Your task to perform on an android device: toggle show notifications on the lock screen Image 0: 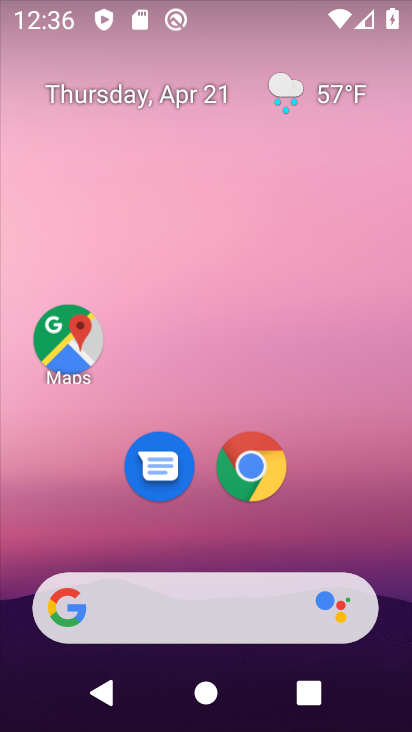
Step 0: drag from (353, 516) to (403, 52)
Your task to perform on an android device: toggle show notifications on the lock screen Image 1: 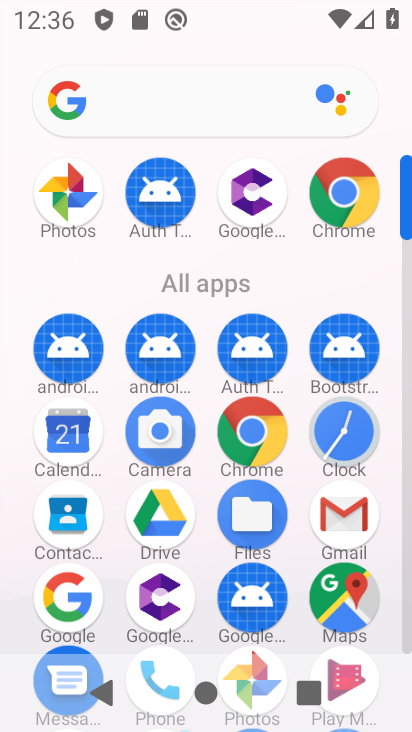
Step 1: drag from (387, 530) to (410, 410)
Your task to perform on an android device: toggle show notifications on the lock screen Image 2: 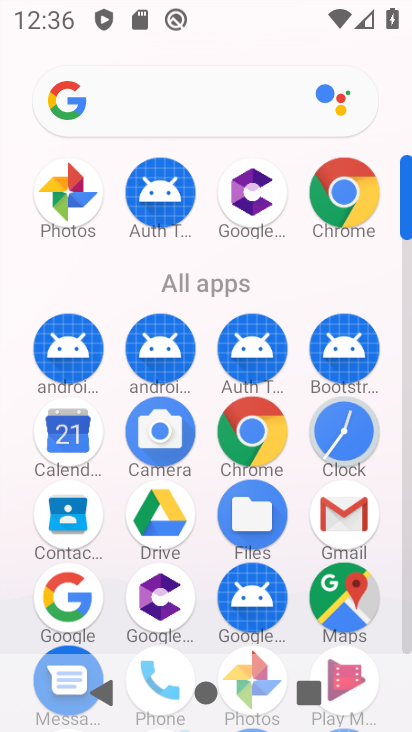
Step 2: drag from (407, 589) to (406, 385)
Your task to perform on an android device: toggle show notifications on the lock screen Image 3: 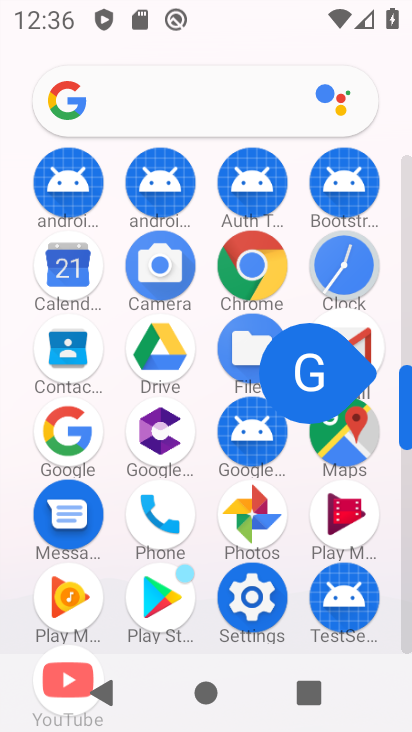
Step 3: click (220, 531)
Your task to perform on an android device: toggle show notifications on the lock screen Image 4: 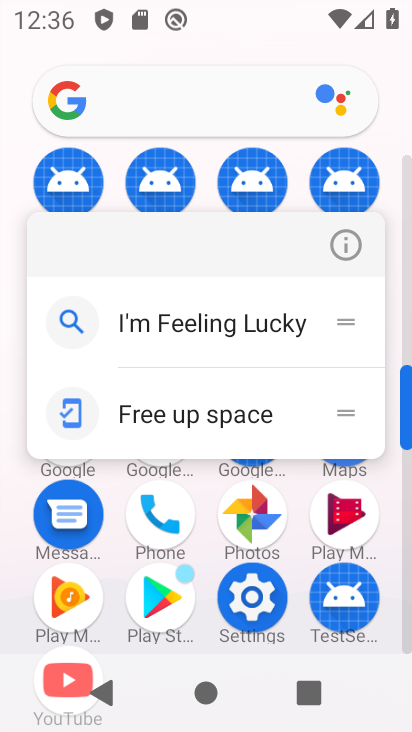
Step 4: click (248, 608)
Your task to perform on an android device: toggle show notifications on the lock screen Image 5: 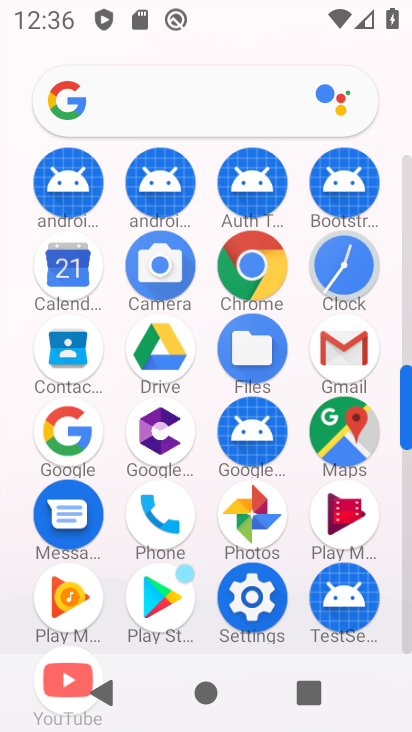
Step 5: click (249, 598)
Your task to perform on an android device: toggle show notifications on the lock screen Image 6: 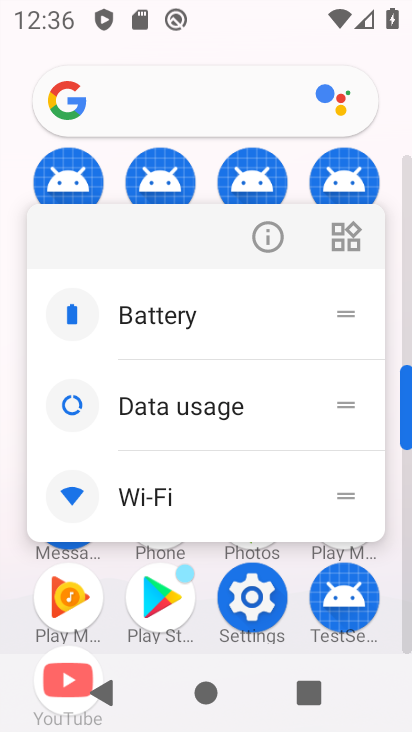
Step 6: click (260, 605)
Your task to perform on an android device: toggle show notifications on the lock screen Image 7: 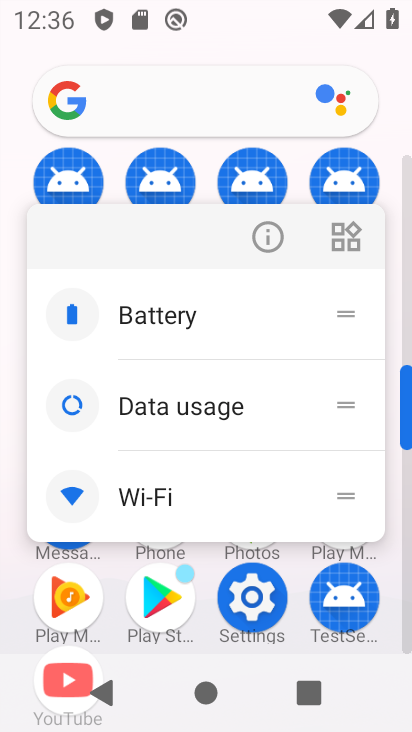
Step 7: click (260, 602)
Your task to perform on an android device: toggle show notifications on the lock screen Image 8: 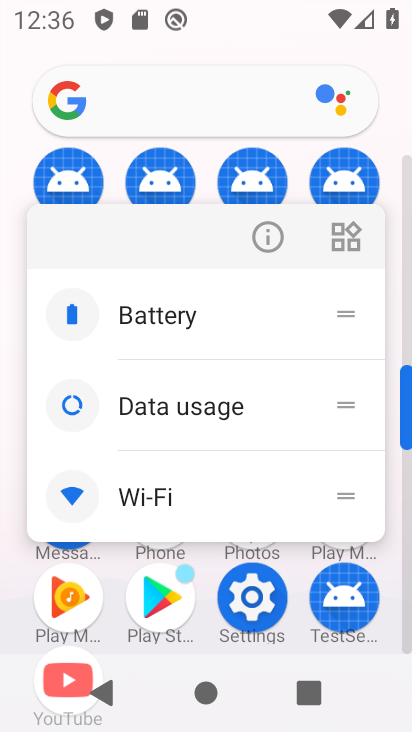
Step 8: click (260, 602)
Your task to perform on an android device: toggle show notifications on the lock screen Image 9: 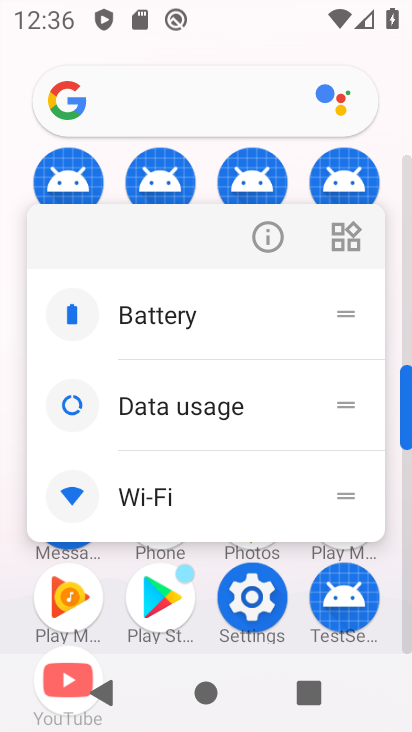
Step 9: click (260, 602)
Your task to perform on an android device: toggle show notifications on the lock screen Image 10: 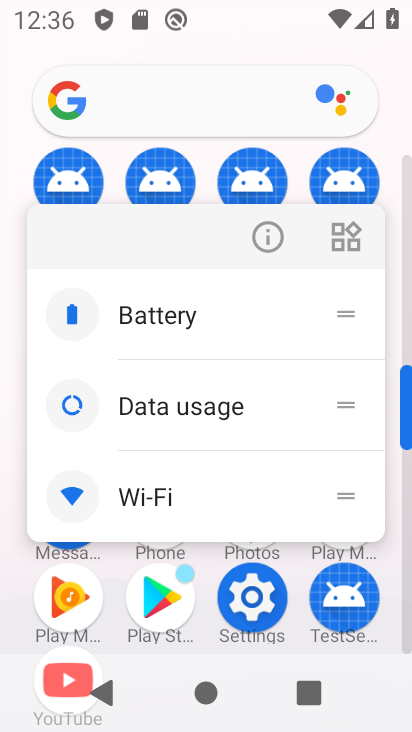
Step 10: click (260, 602)
Your task to perform on an android device: toggle show notifications on the lock screen Image 11: 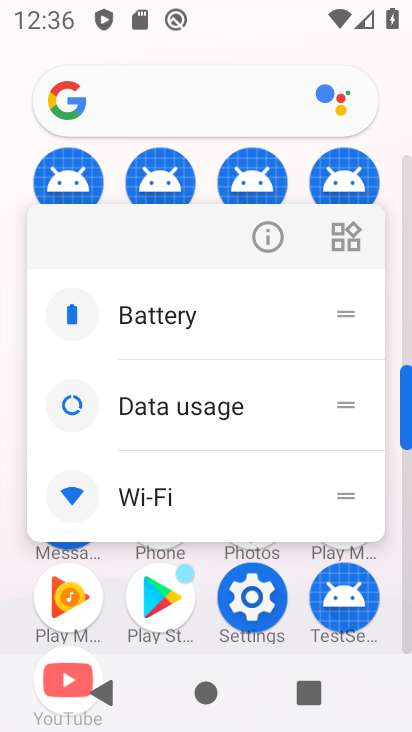
Step 11: click (260, 602)
Your task to perform on an android device: toggle show notifications on the lock screen Image 12: 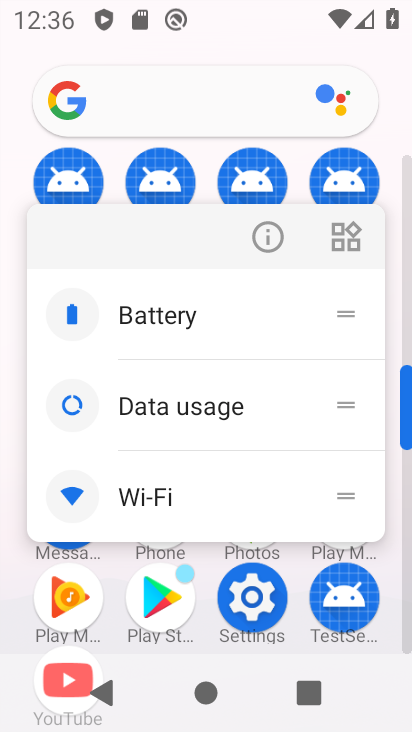
Step 12: click (260, 602)
Your task to perform on an android device: toggle show notifications on the lock screen Image 13: 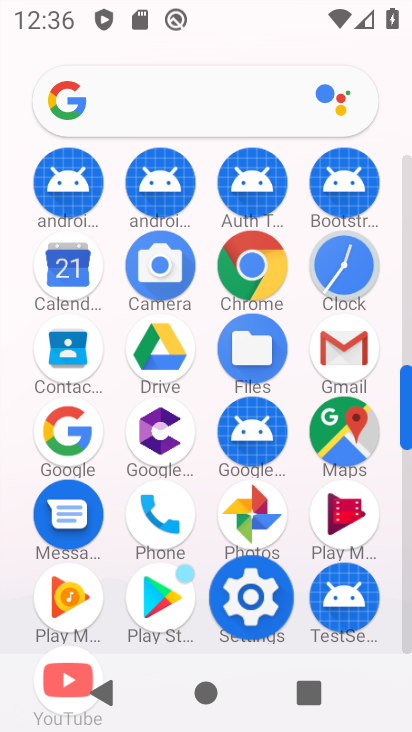
Step 13: click (260, 602)
Your task to perform on an android device: toggle show notifications on the lock screen Image 14: 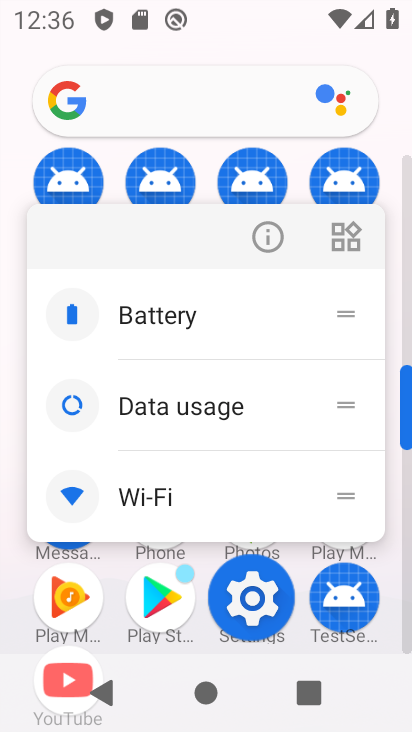
Step 14: click (260, 602)
Your task to perform on an android device: toggle show notifications on the lock screen Image 15: 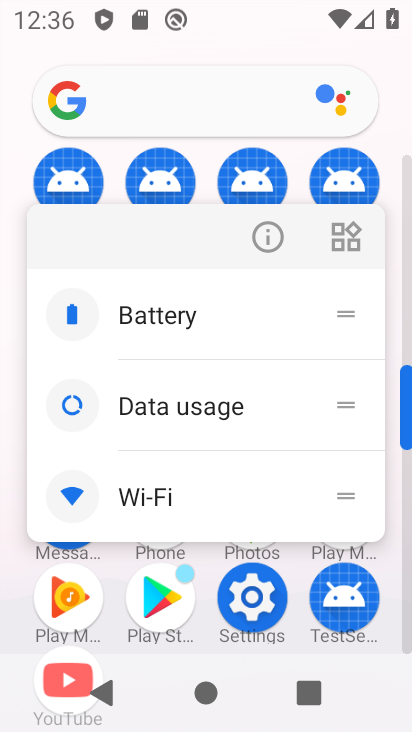
Step 15: click (260, 602)
Your task to perform on an android device: toggle show notifications on the lock screen Image 16: 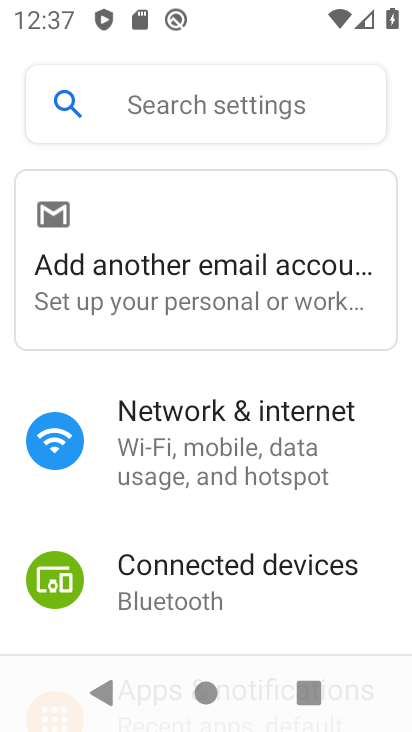
Step 16: drag from (273, 582) to (329, 310)
Your task to perform on an android device: toggle show notifications on the lock screen Image 17: 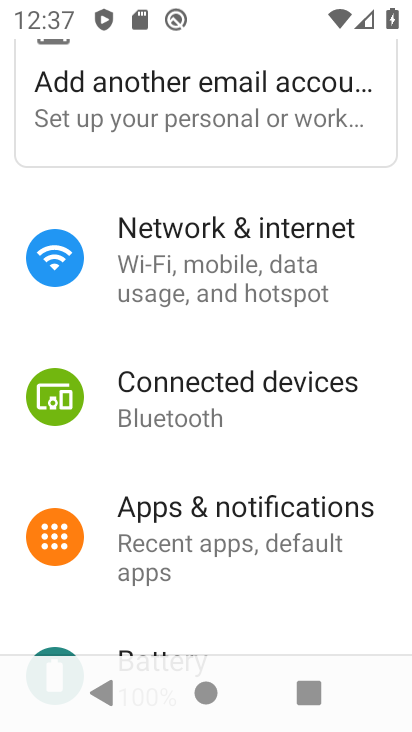
Step 17: click (261, 513)
Your task to perform on an android device: toggle show notifications on the lock screen Image 18: 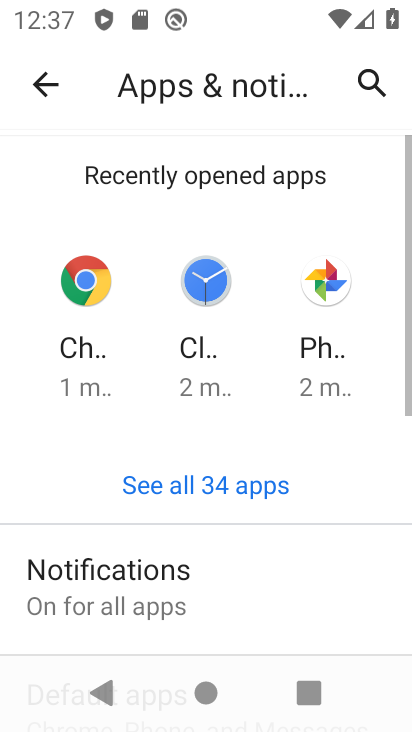
Step 18: click (137, 586)
Your task to perform on an android device: toggle show notifications on the lock screen Image 19: 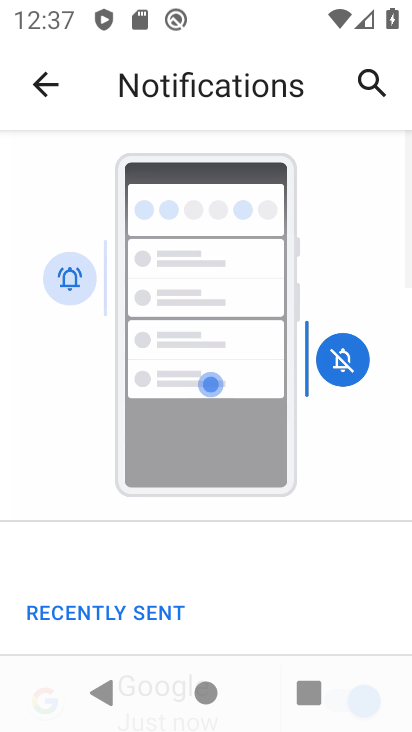
Step 19: drag from (225, 583) to (338, 118)
Your task to perform on an android device: toggle show notifications on the lock screen Image 20: 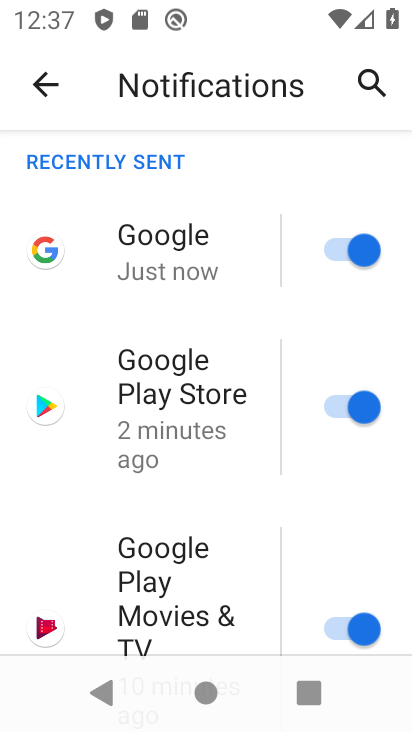
Step 20: drag from (215, 456) to (286, 144)
Your task to perform on an android device: toggle show notifications on the lock screen Image 21: 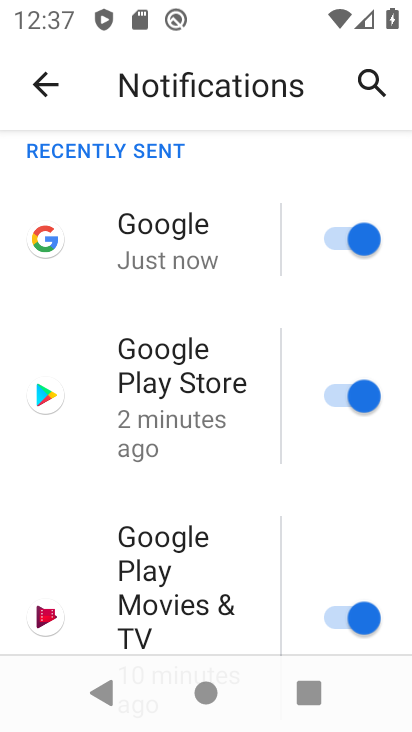
Step 21: drag from (186, 577) to (276, 143)
Your task to perform on an android device: toggle show notifications on the lock screen Image 22: 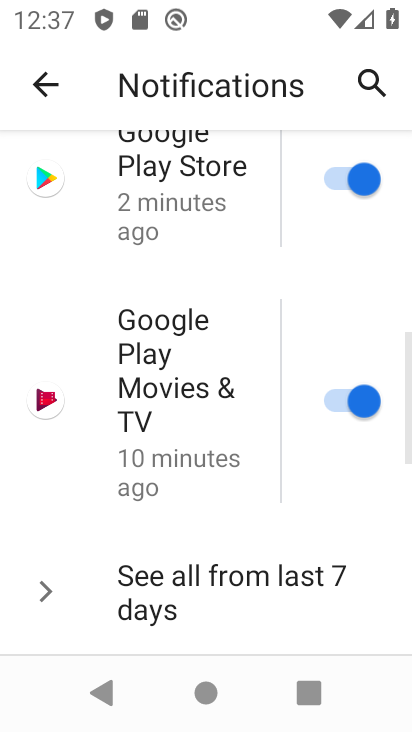
Step 22: drag from (118, 602) to (238, 128)
Your task to perform on an android device: toggle show notifications on the lock screen Image 23: 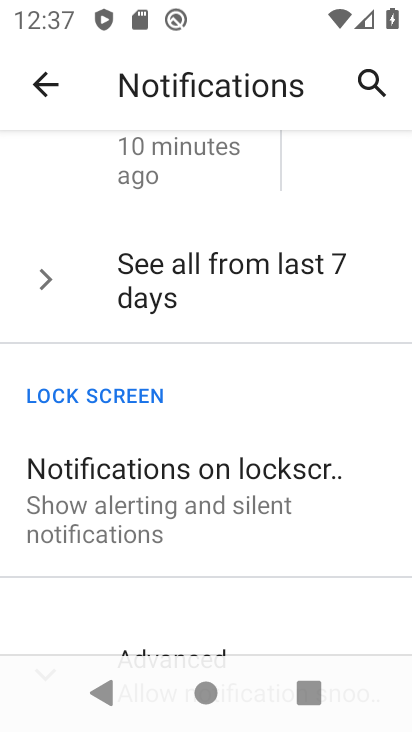
Step 23: click (171, 482)
Your task to perform on an android device: toggle show notifications on the lock screen Image 24: 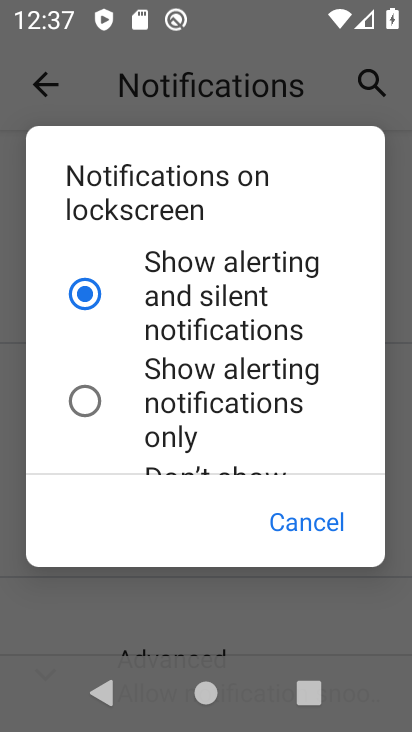
Step 24: drag from (251, 322) to (269, 195)
Your task to perform on an android device: toggle show notifications on the lock screen Image 25: 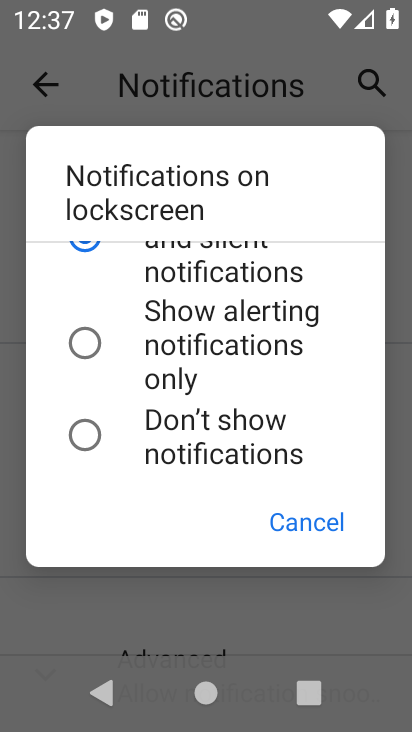
Step 25: click (77, 352)
Your task to perform on an android device: toggle show notifications on the lock screen Image 26: 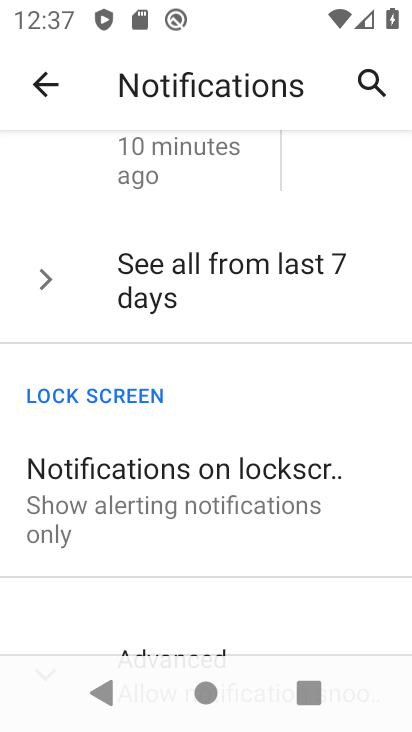
Step 26: task complete